Your task to perform on an android device: What's the weather today? Image 0: 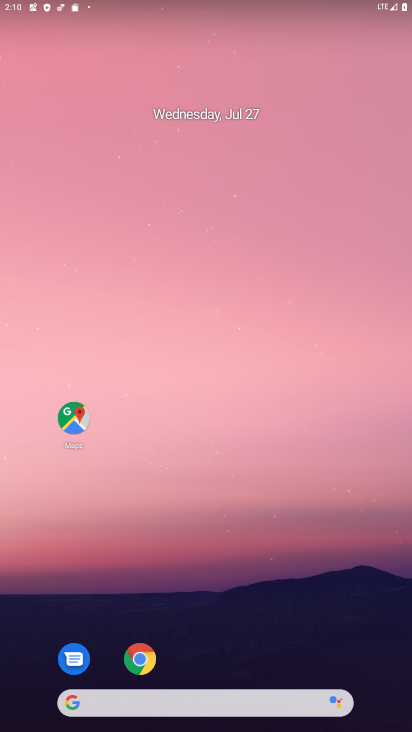
Step 0: drag from (193, 623) to (238, 97)
Your task to perform on an android device: What's the weather today? Image 1: 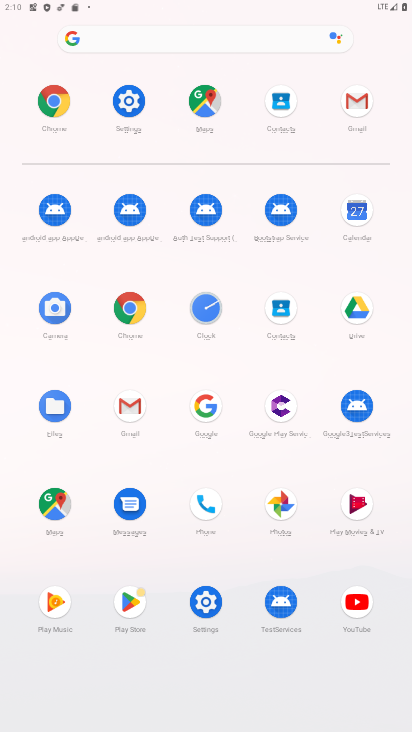
Step 1: click (204, 405)
Your task to perform on an android device: What's the weather today? Image 2: 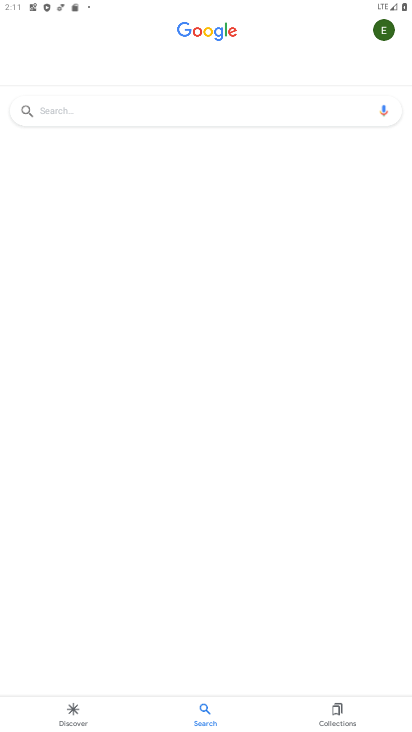
Step 2: click (218, 96)
Your task to perform on an android device: What's the weather today? Image 3: 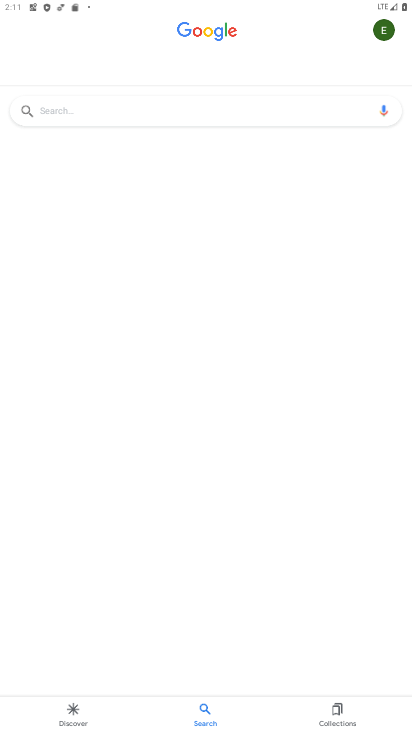
Step 3: click (126, 103)
Your task to perform on an android device: What's the weather today? Image 4: 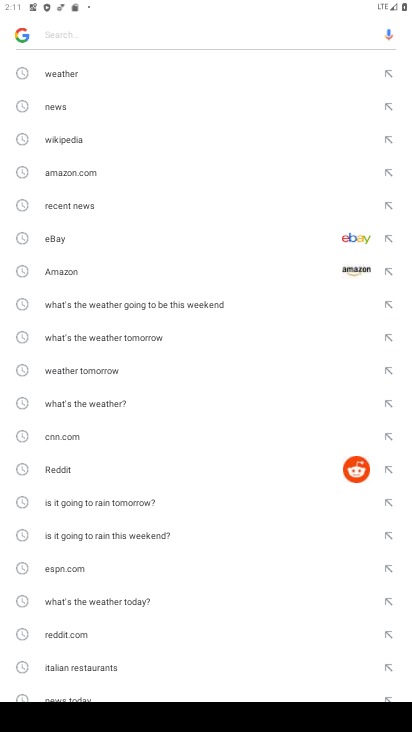
Step 4: click (57, 77)
Your task to perform on an android device: What's the weather today? Image 5: 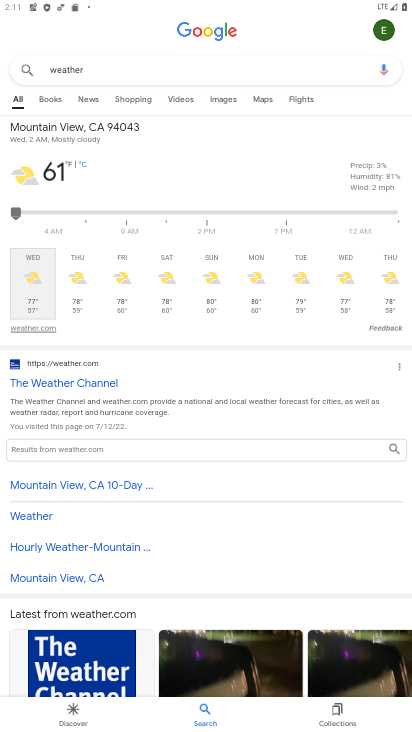
Step 5: task complete